Your task to perform on an android device: Open Google Chrome and open the bookmarks view Image 0: 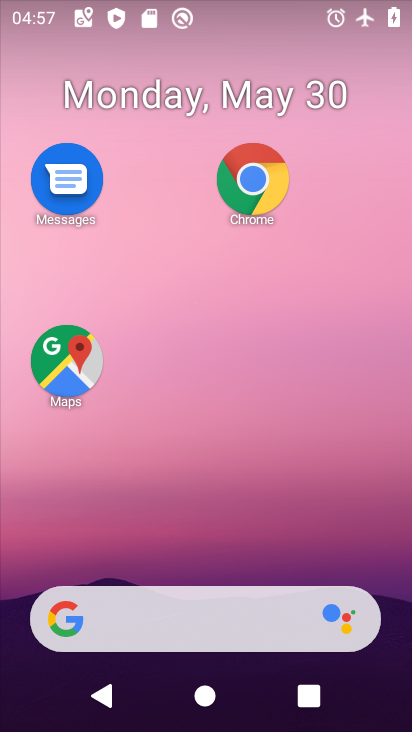
Step 0: drag from (233, 548) to (219, 87)
Your task to perform on an android device: Open Google Chrome and open the bookmarks view Image 1: 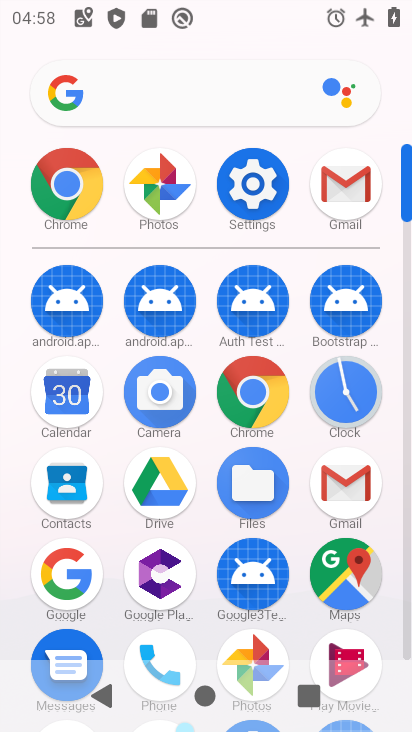
Step 1: click (242, 378)
Your task to perform on an android device: Open Google Chrome and open the bookmarks view Image 2: 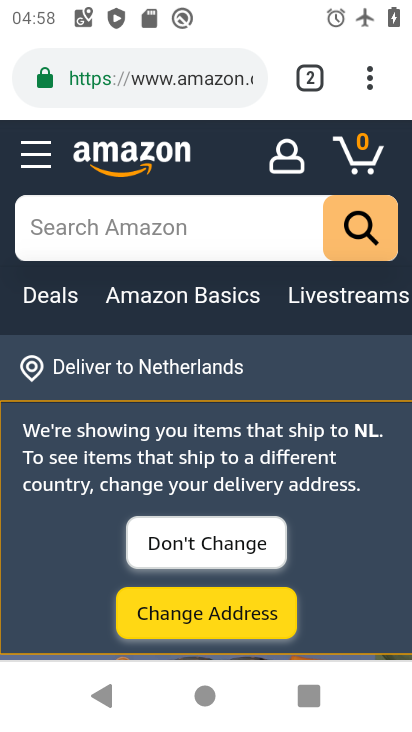
Step 2: click (373, 90)
Your task to perform on an android device: Open Google Chrome and open the bookmarks view Image 3: 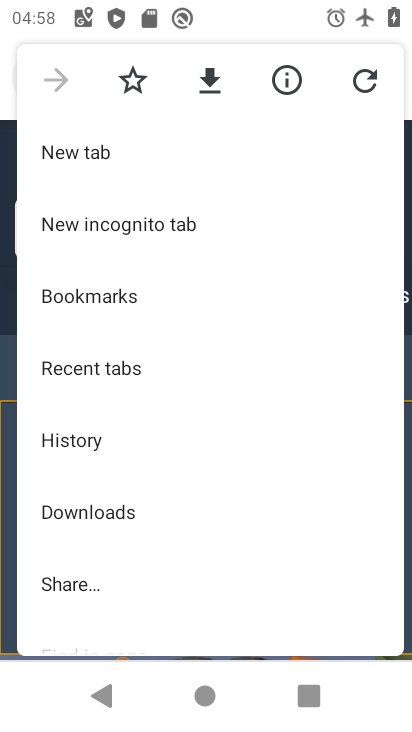
Step 3: click (69, 291)
Your task to perform on an android device: Open Google Chrome and open the bookmarks view Image 4: 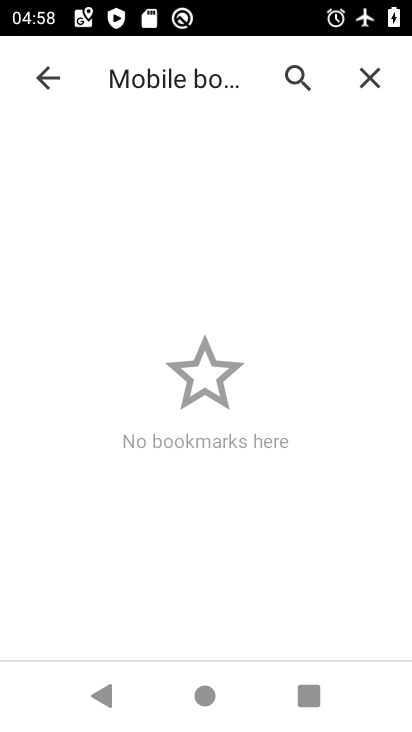
Step 4: task complete